Your task to perform on an android device: turn off airplane mode Image 0: 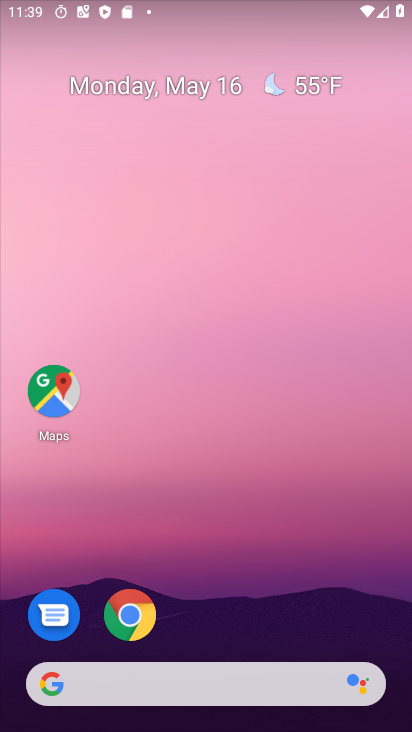
Step 0: drag from (267, 7) to (243, 432)
Your task to perform on an android device: turn off airplane mode Image 1: 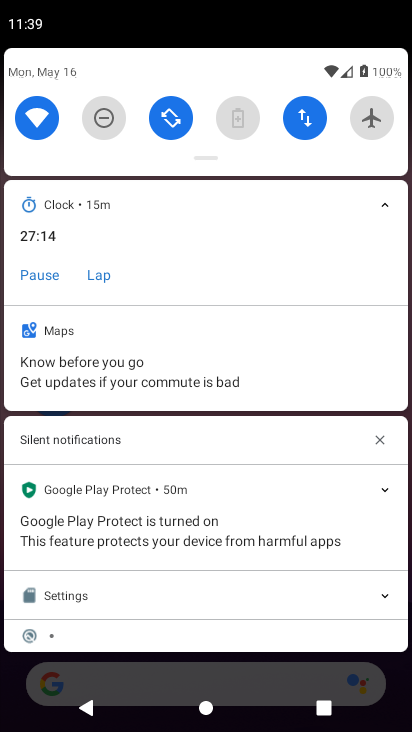
Step 1: task complete